Your task to perform on an android device: check google app version Image 0: 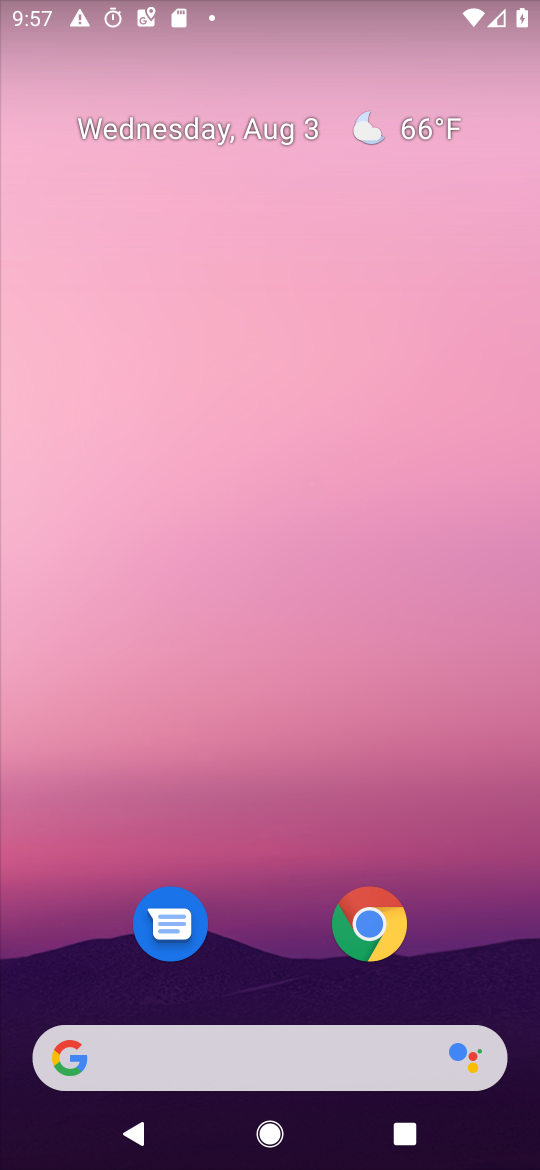
Step 0: press home button
Your task to perform on an android device: check google app version Image 1: 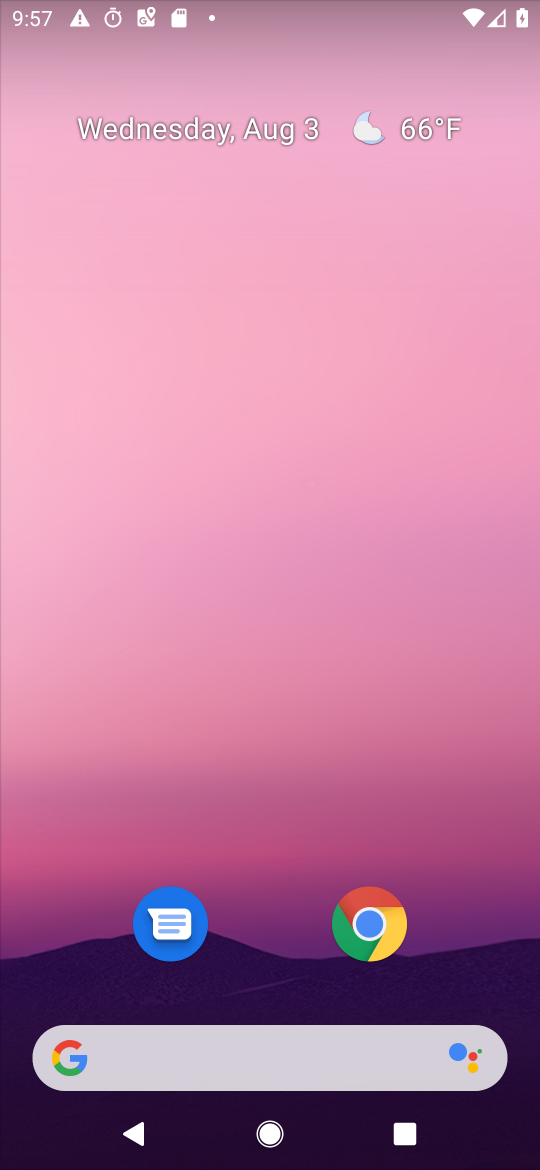
Step 1: drag from (268, 980) to (241, 142)
Your task to perform on an android device: check google app version Image 2: 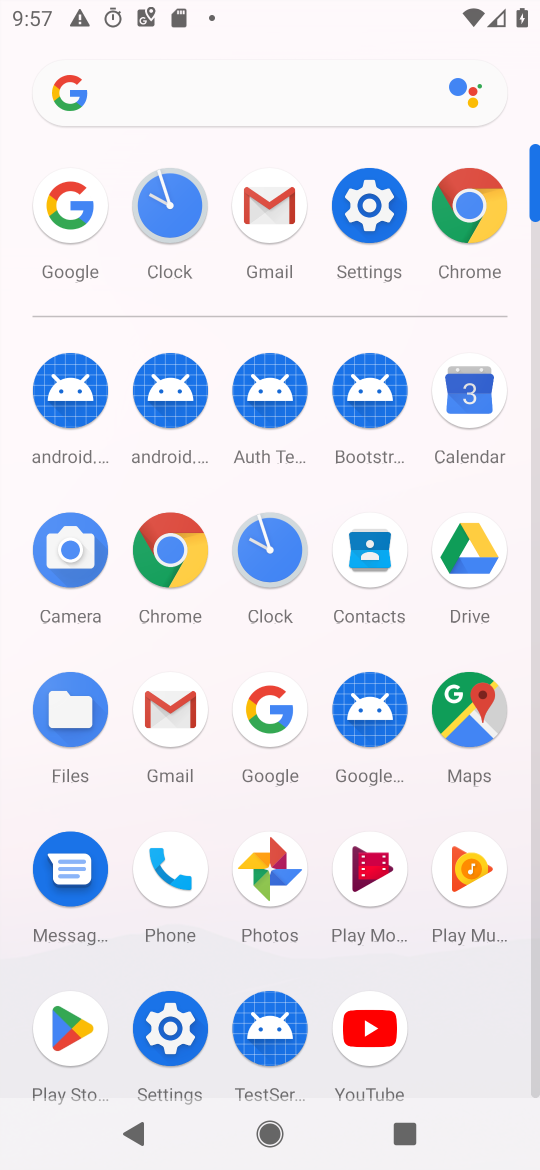
Step 2: click (266, 701)
Your task to perform on an android device: check google app version Image 3: 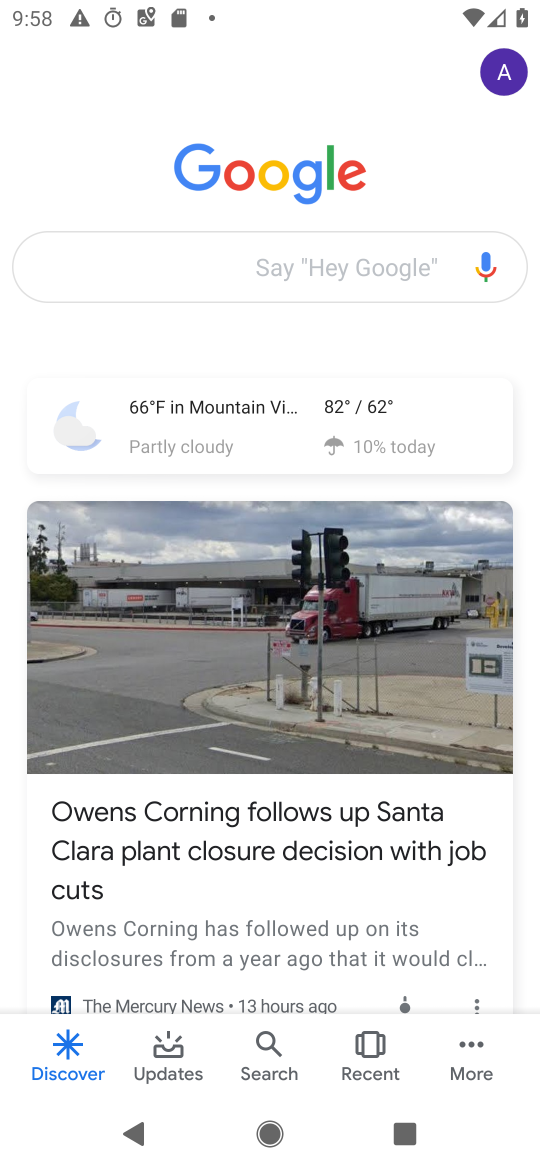
Step 3: click (465, 1042)
Your task to perform on an android device: check google app version Image 4: 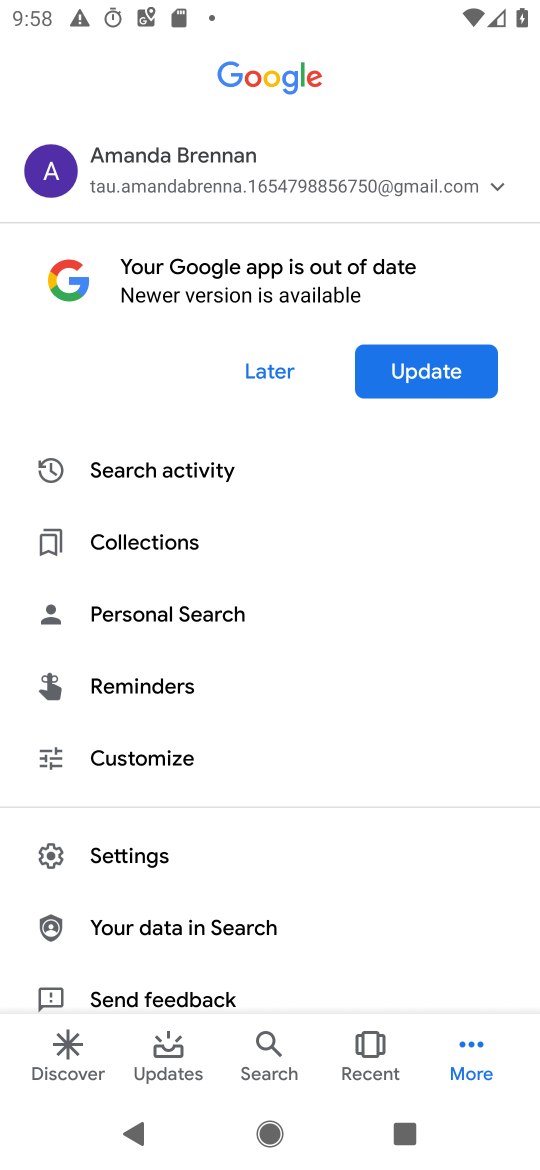
Step 4: click (172, 842)
Your task to perform on an android device: check google app version Image 5: 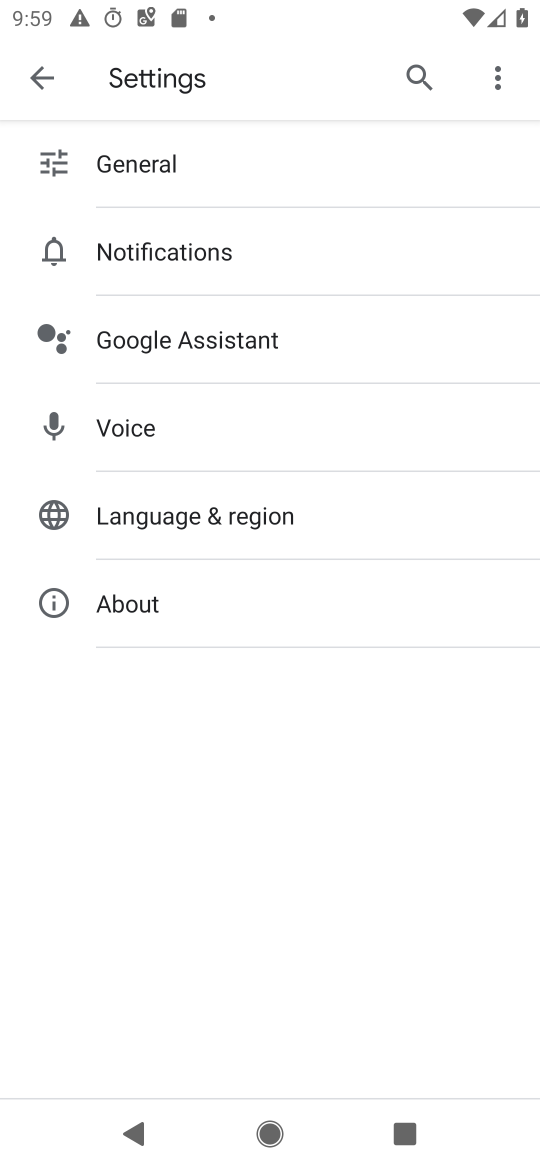
Step 5: click (186, 613)
Your task to perform on an android device: check google app version Image 6: 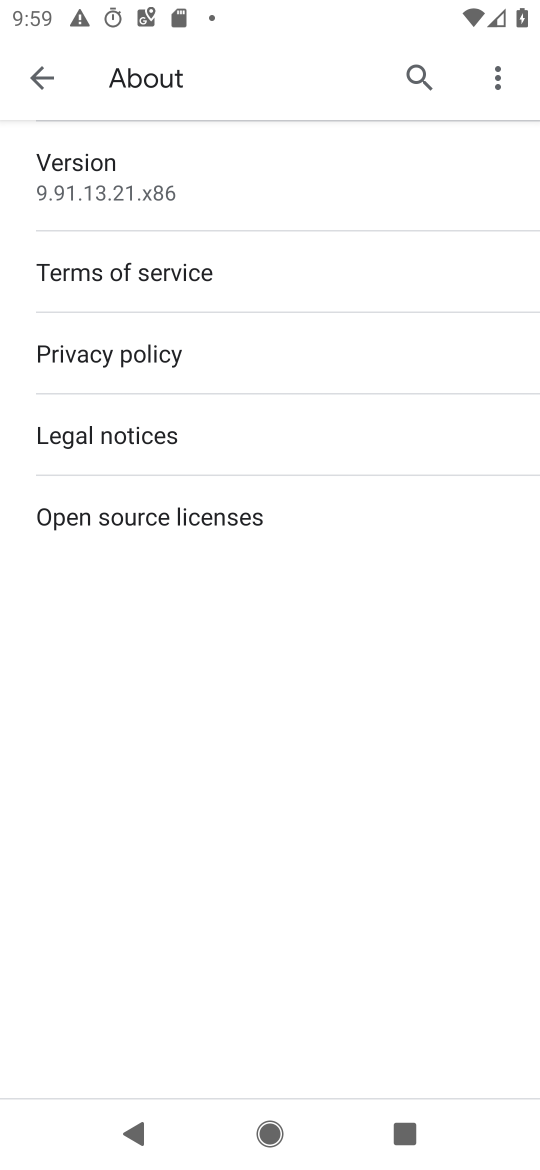
Step 6: task complete